Your task to perform on an android device: Search for Italian restaurants on Maps Image 0: 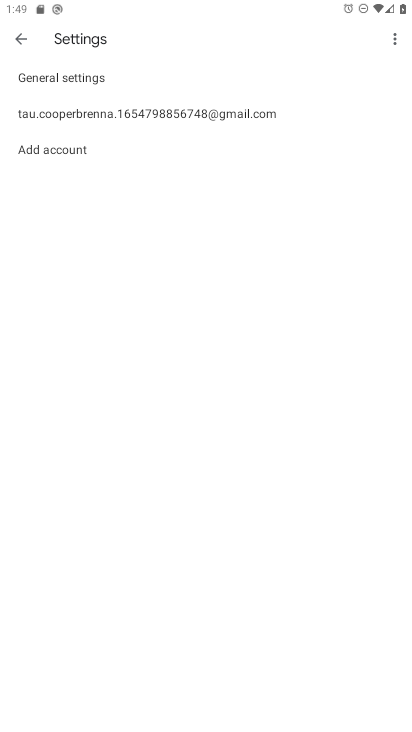
Step 0: press home button
Your task to perform on an android device: Search for Italian restaurants on Maps Image 1: 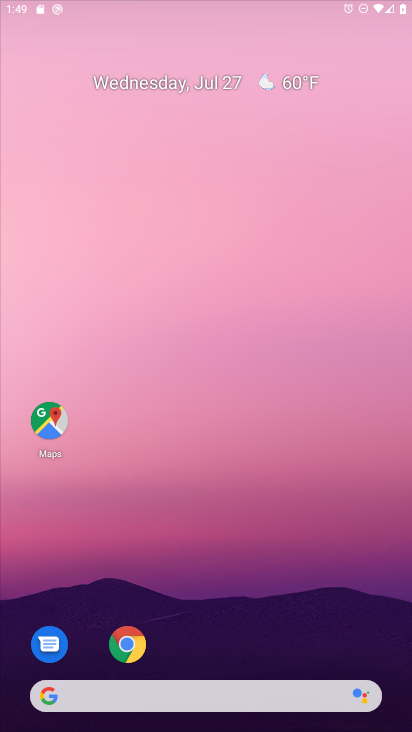
Step 1: drag from (254, 458) to (362, 135)
Your task to perform on an android device: Search for Italian restaurants on Maps Image 2: 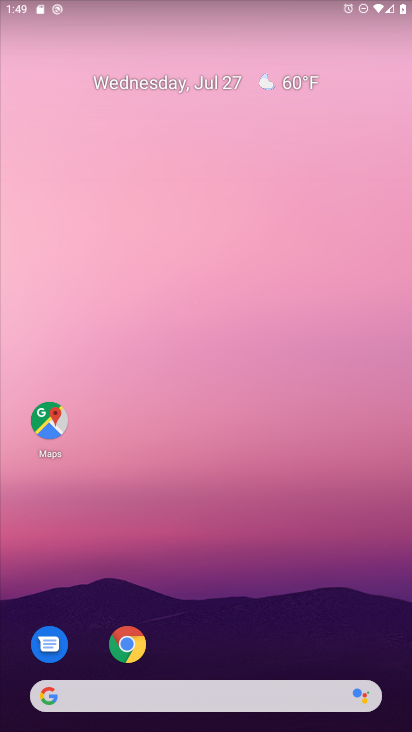
Step 2: drag from (180, 645) to (299, 9)
Your task to perform on an android device: Search for Italian restaurants on Maps Image 3: 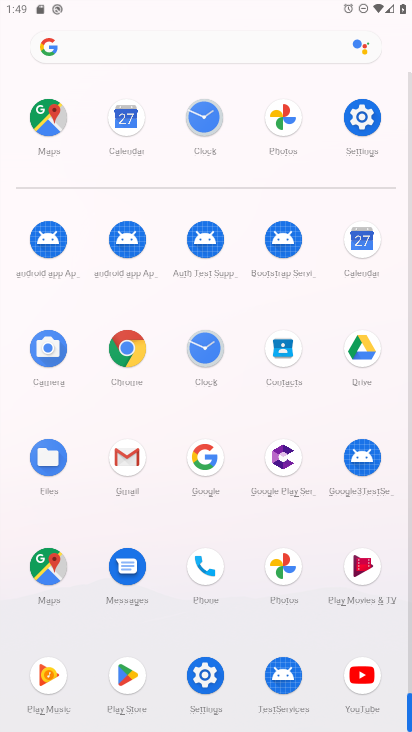
Step 3: click (29, 562)
Your task to perform on an android device: Search for Italian restaurants on Maps Image 4: 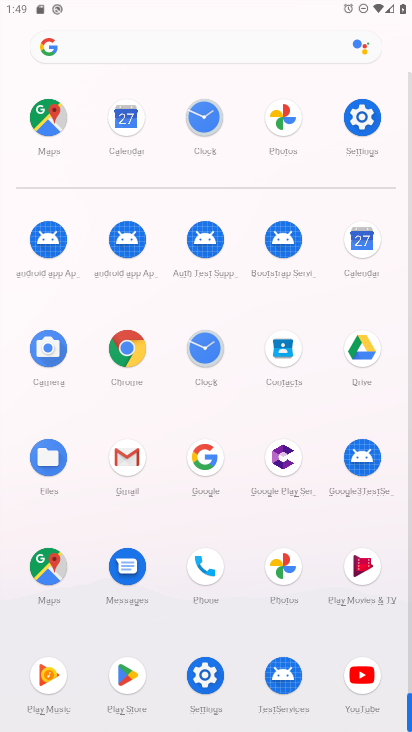
Step 4: click (29, 562)
Your task to perform on an android device: Search for Italian restaurants on Maps Image 5: 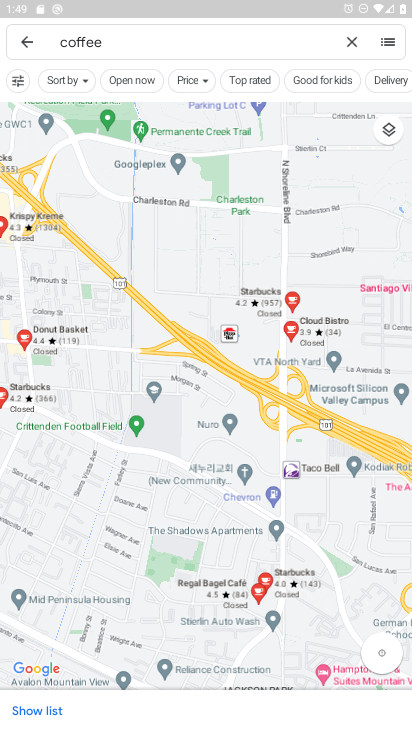
Step 5: click (351, 42)
Your task to perform on an android device: Search for Italian restaurants on Maps Image 6: 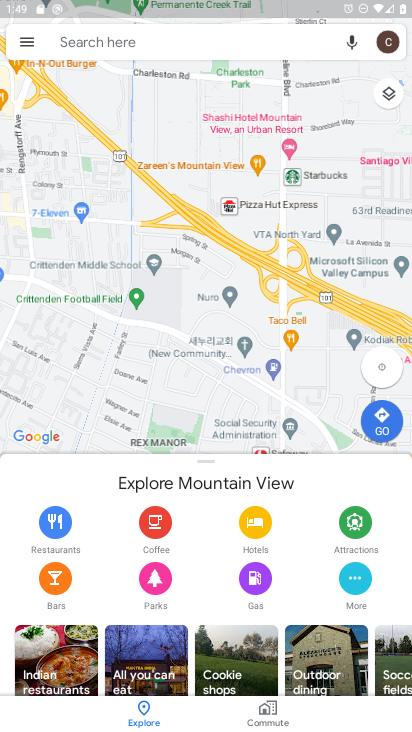
Step 6: click (94, 39)
Your task to perform on an android device: Search for Italian restaurants on Maps Image 7: 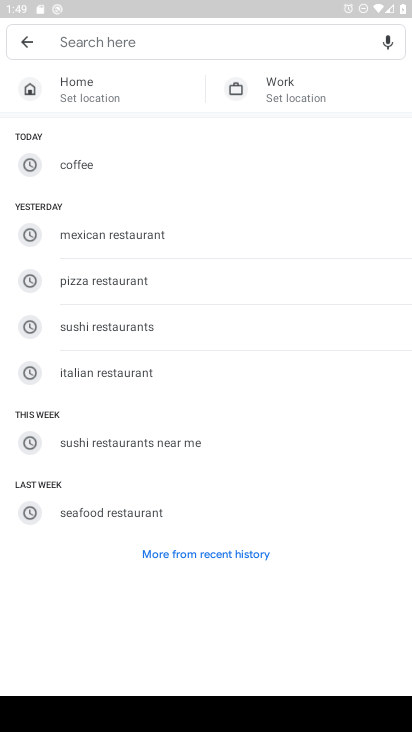
Step 7: click (81, 370)
Your task to perform on an android device: Search for Italian restaurants on Maps Image 8: 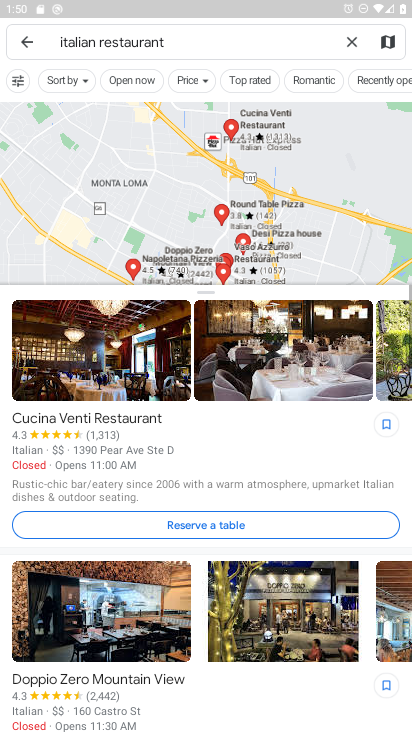
Step 8: task complete